Your task to perform on an android device: Open accessibility settings Image 0: 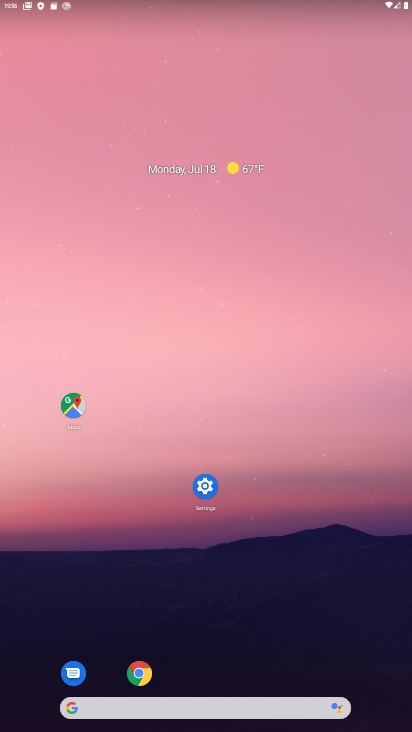
Step 0: drag from (306, 662) to (232, 94)
Your task to perform on an android device: Open accessibility settings Image 1: 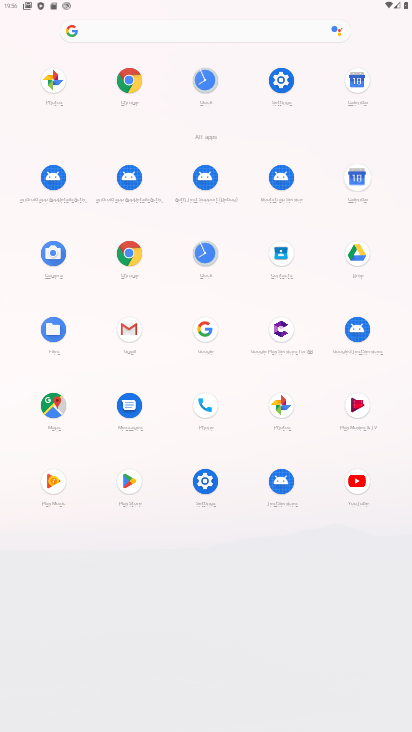
Step 1: click (198, 476)
Your task to perform on an android device: Open accessibility settings Image 2: 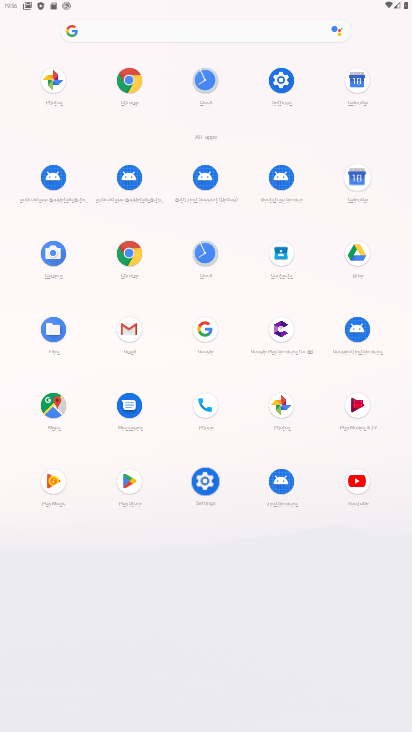
Step 2: click (198, 475)
Your task to perform on an android device: Open accessibility settings Image 3: 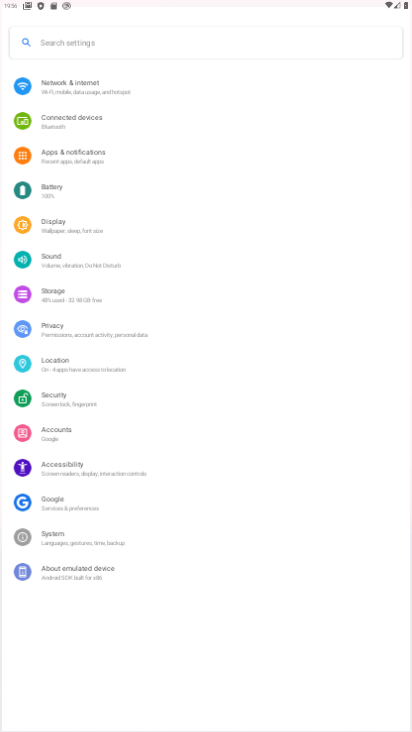
Step 3: click (204, 485)
Your task to perform on an android device: Open accessibility settings Image 4: 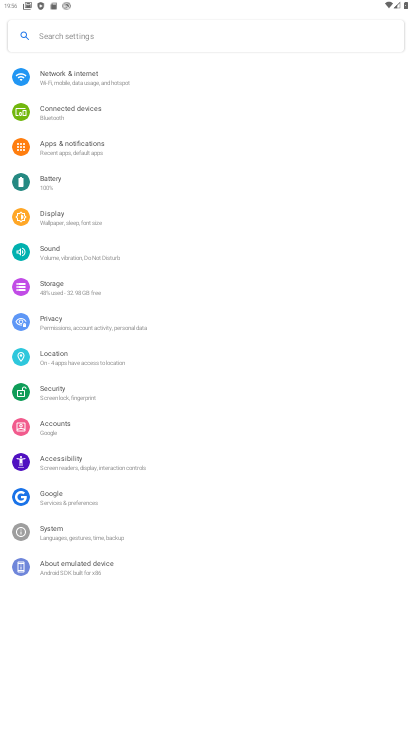
Step 4: click (204, 485)
Your task to perform on an android device: Open accessibility settings Image 5: 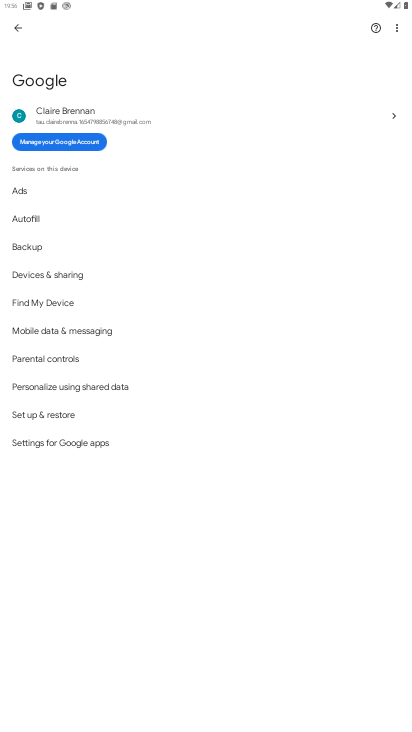
Step 5: press back button
Your task to perform on an android device: Open accessibility settings Image 6: 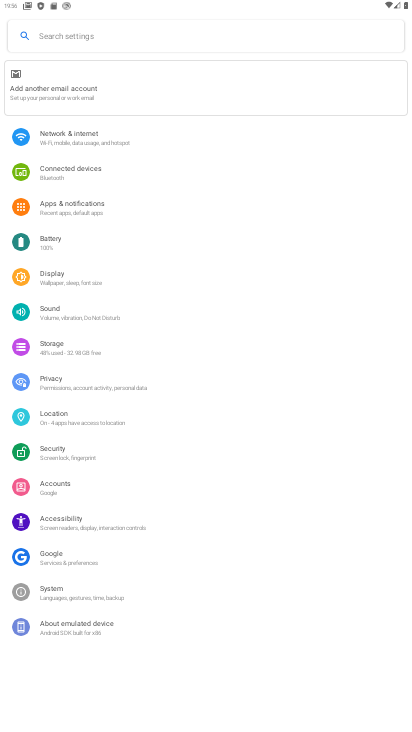
Step 6: click (69, 514)
Your task to perform on an android device: Open accessibility settings Image 7: 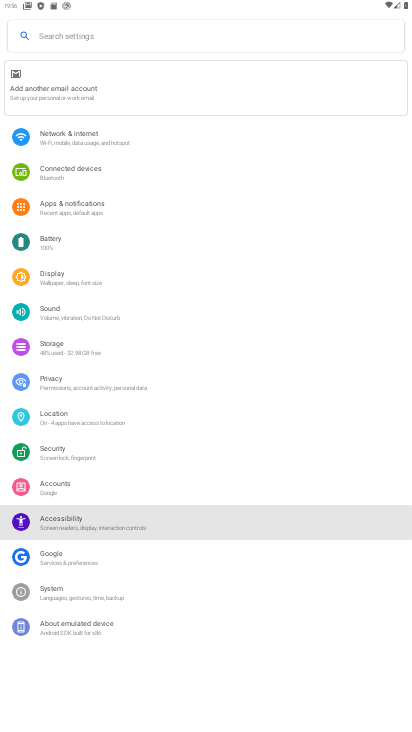
Step 7: click (69, 514)
Your task to perform on an android device: Open accessibility settings Image 8: 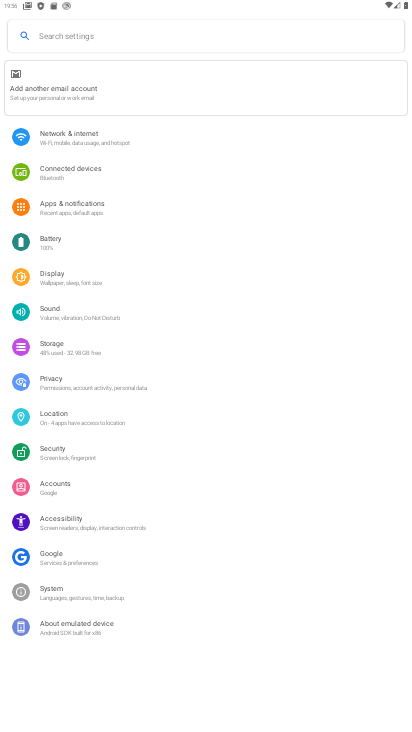
Step 8: click (69, 517)
Your task to perform on an android device: Open accessibility settings Image 9: 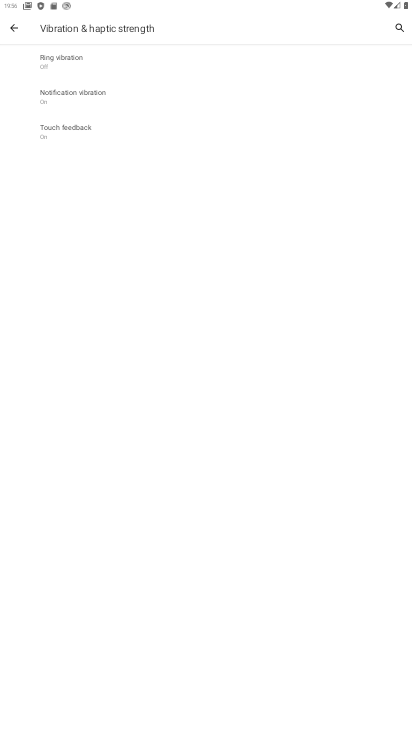
Step 9: click (4, 25)
Your task to perform on an android device: Open accessibility settings Image 10: 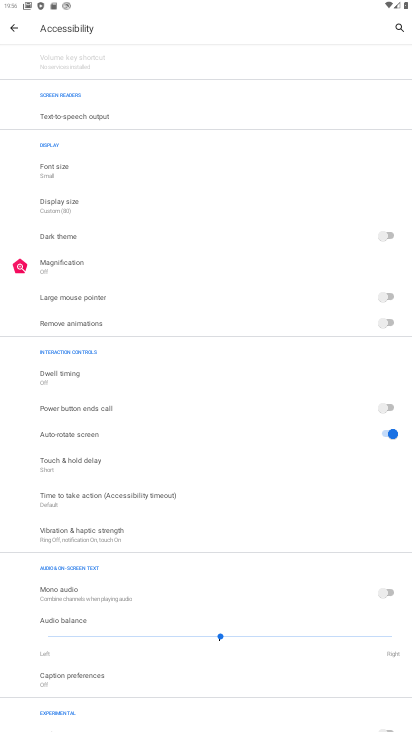
Step 10: click (15, 17)
Your task to perform on an android device: Open accessibility settings Image 11: 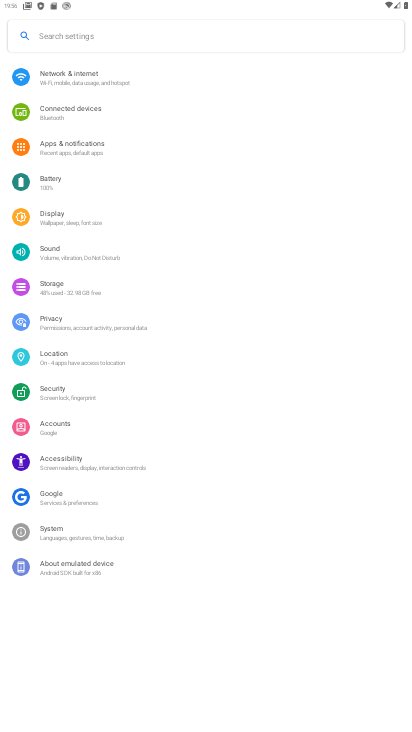
Step 11: task complete